Your task to perform on an android device: Open Google Maps Image 0: 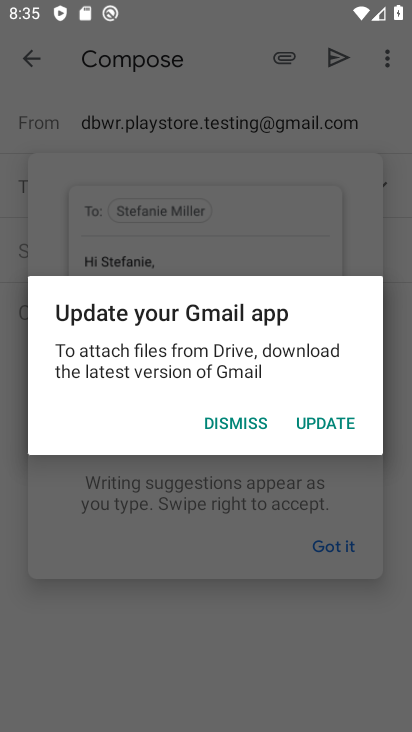
Step 0: press home button
Your task to perform on an android device: Open Google Maps Image 1: 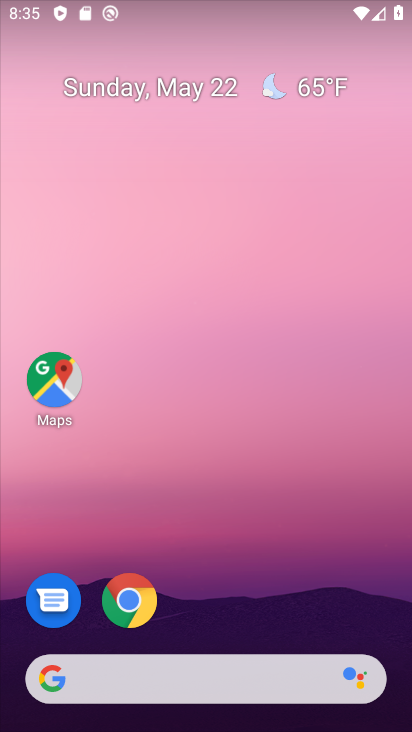
Step 1: click (28, 376)
Your task to perform on an android device: Open Google Maps Image 2: 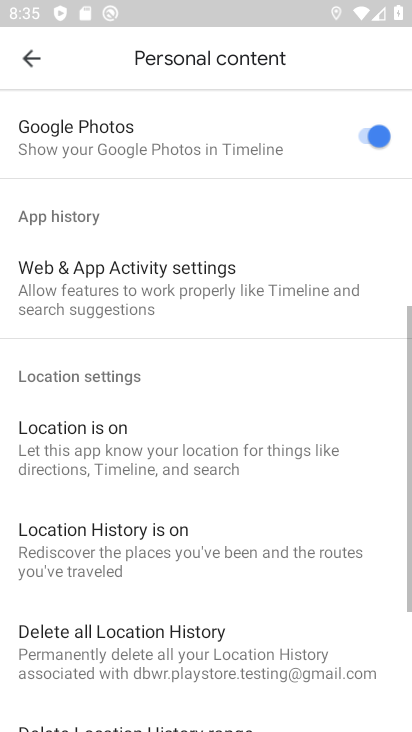
Step 2: click (35, 58)
Your task to perform on an android device: Open Google Maps Image 3: 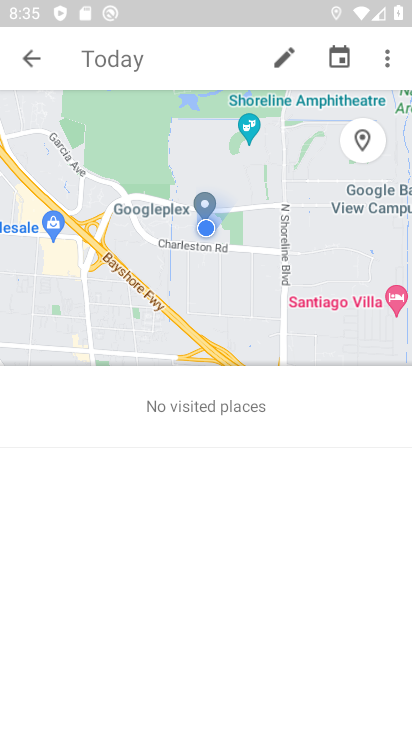
Step 3: task complete